Your task to perform on an android device: Open the calendar app, open the side menu, and click the "Day" option Image 0: 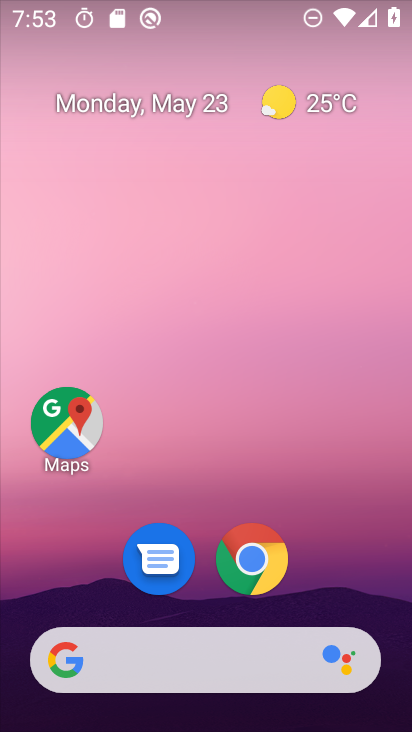
Step 0: drag from (399, 652) to (265, 53)
Your task to perform on an android device: Open the calendar app, open the side menu, and click the "Day" option Image 1: 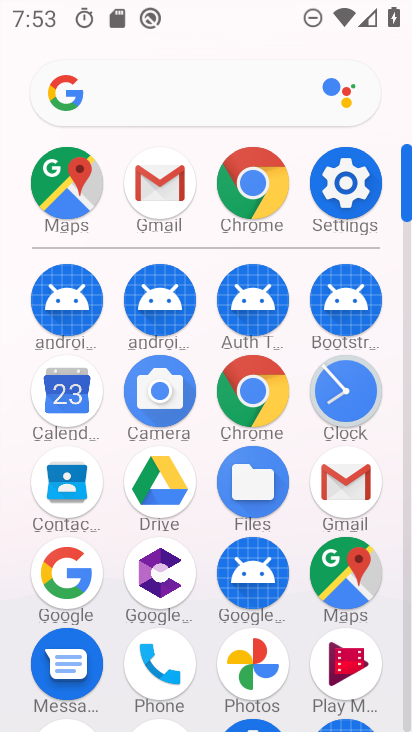
Step 1: click (53, 389)
Your task to perform on an android device: Open the calendar app, open the side menu, and click the "Day" option Image 2: 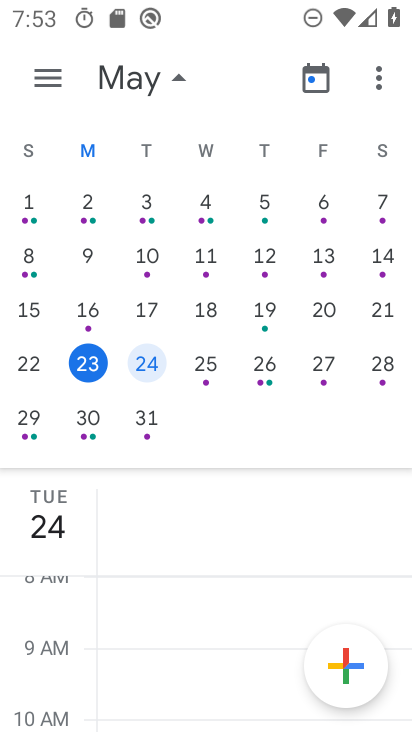
Step 2: click (41, 94)
Your task to perform on an android device: Open the calendar app, open the side menu, and click the "Day" option Image 3: 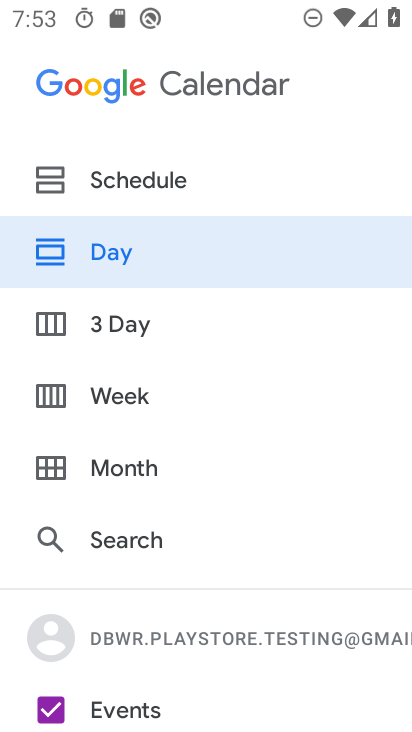
Step 3: click (122, 240)
Your task to perform on an android device: Open the calendar app, open the side menu, and click the "Day" option Image 4: 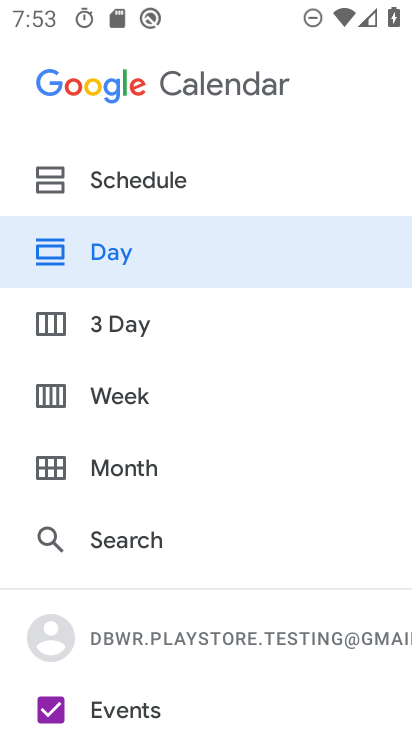
Step 4: click (317, 247)
Your task to perform on an android device: Open the calendar app, open the side menu, and click the "Day" option Image 5: 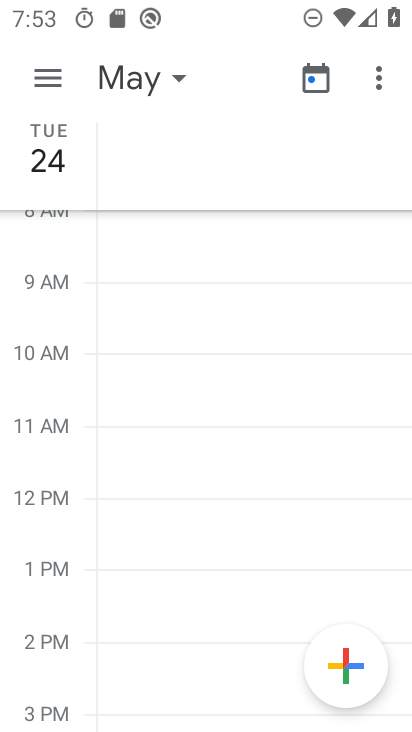
Step 5: task complete